Your task to perform on an android device: Open the stopwatch Image 0: 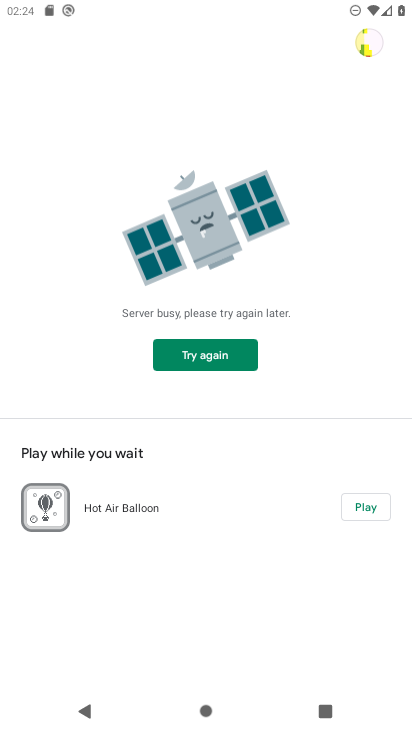
Step 0: press home button
Your task to perform on an android device: Open the stopwatch Image 1: 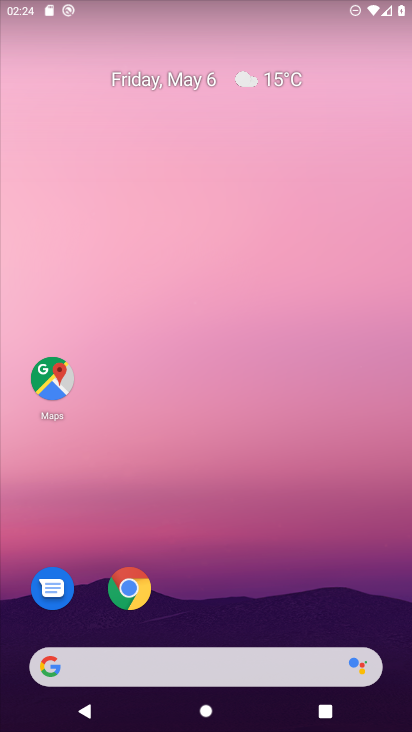
Step 1: drag from (201, 630) to (103, 9)
Your task to perform on an android device: Open the stopwatch Image 2: 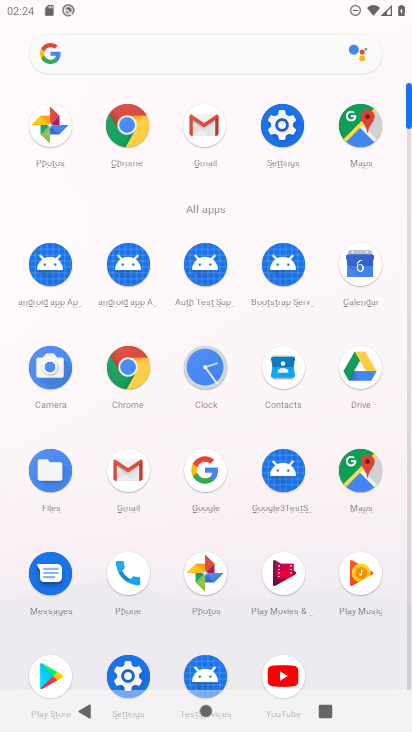
Step 2: click (217, 371)
Your task to perform on an android device: Open the stopwatch Image 3: 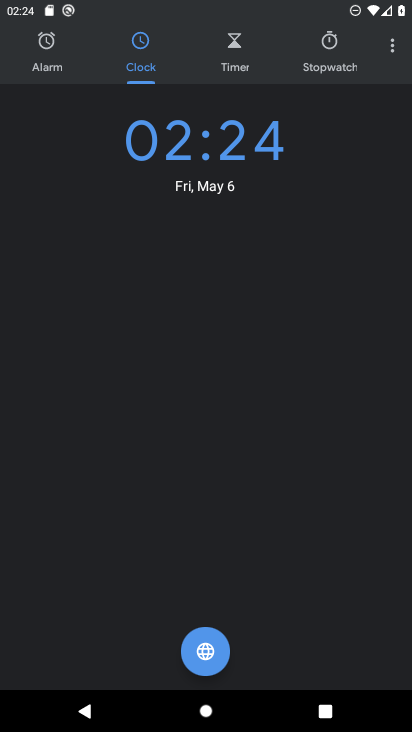
Step 3: click (310, 39)
Your task to perform on an android device: Open the stopwatch Image 4: 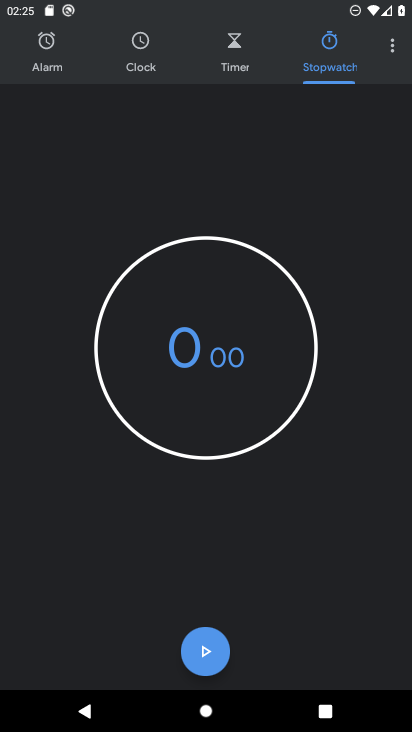
Step 4: task complete